Your task to perform on an android device: Go to internet settings Image 0: 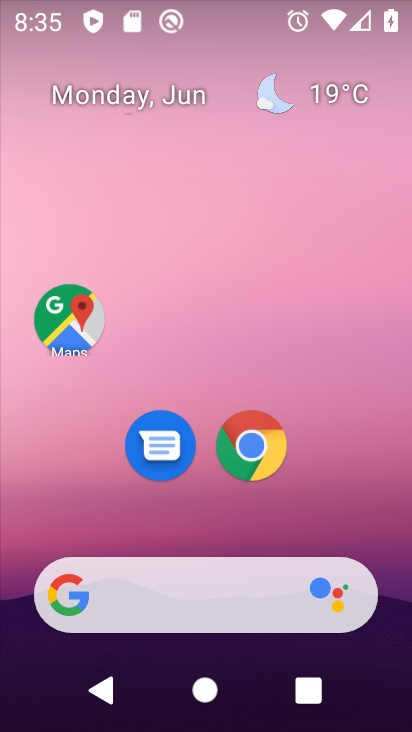
Step 0: drag from (33, 545) to (206, 104)
Your task to perform on an android device: Go to internet settings Image 1: 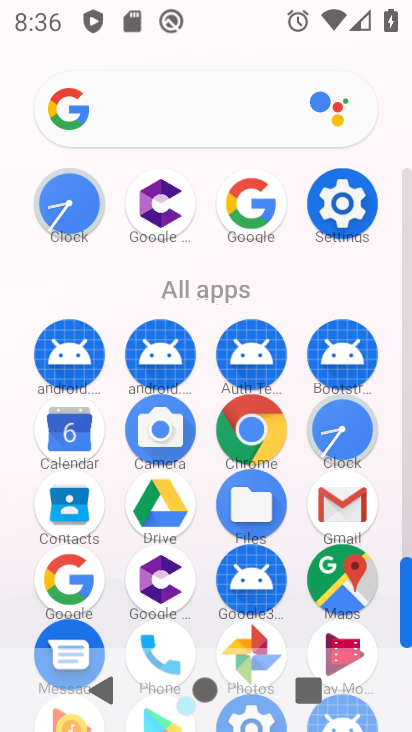
Step 1: click (352, 215)
Your task to perform on an android device: Go to internet settings Image 2: 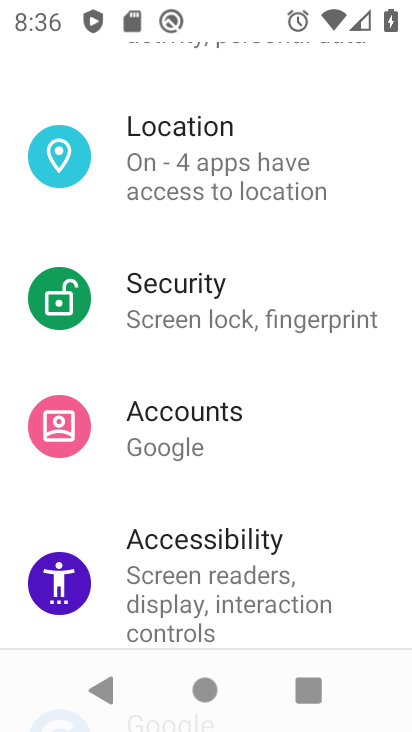
Step 2: drag from (339, 210) to (252, 590)
Your task to perform on an android device: Go to internet settings Image 3: 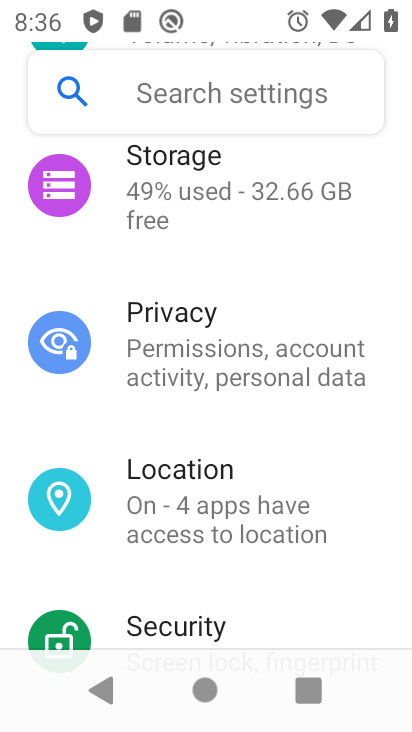
Step 3: drag from (297, 221) to (249, 553)
Your task to perform on an android device: Go to internet settings Image 4: 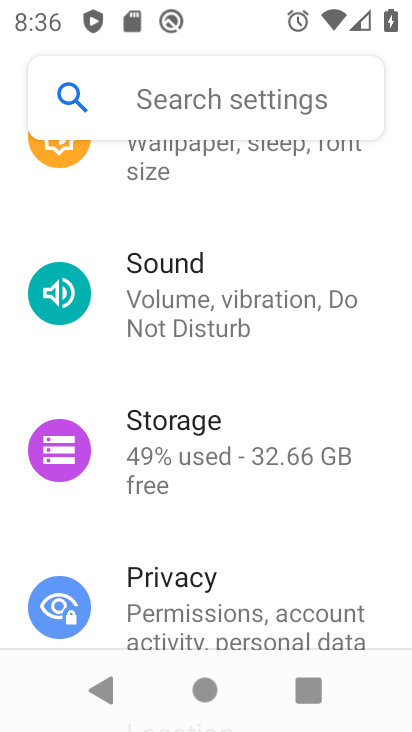
Step 4: drag from (287, 229) to (253, 539)
Your task to perform on an android device: Go to internet settings Image 5: 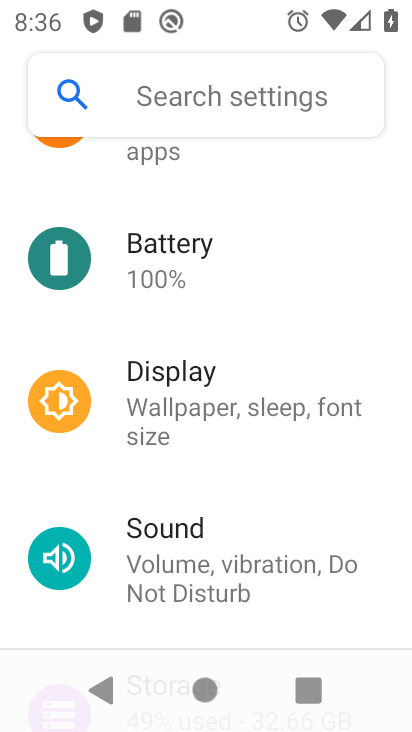
Step 5: drag from (243, 300) to (196, 483)
Your task to perform on an android device: Go to internet settings Image 6: 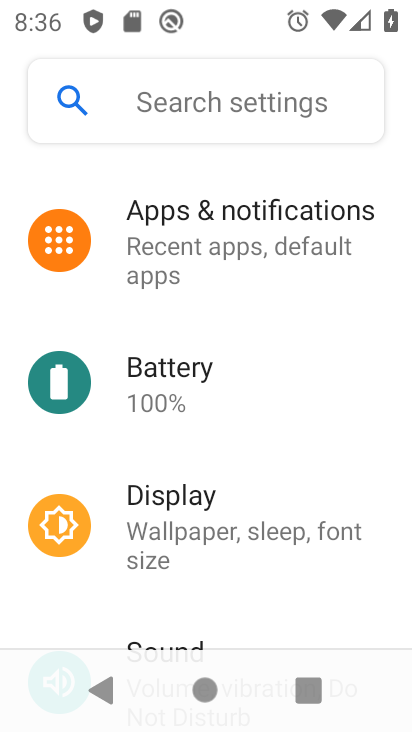
Step 6: drag from (248, 239) to (224, 542)
Your task to perform on an android device: Go to internet settings Image 7: 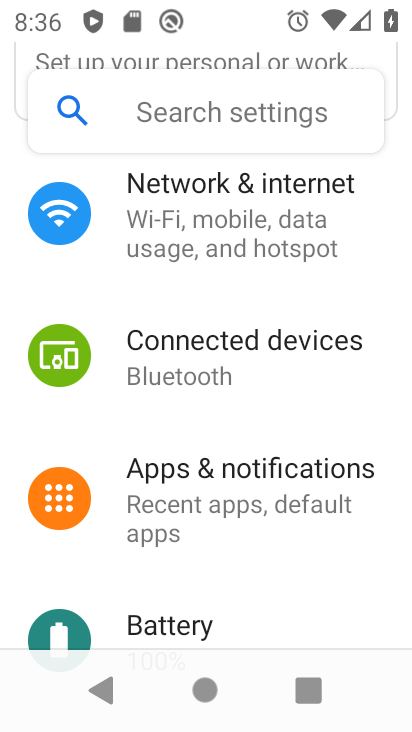
Step 7: click (251, 226)
Your task to perform on an android device: Go to internet settings Image 8: 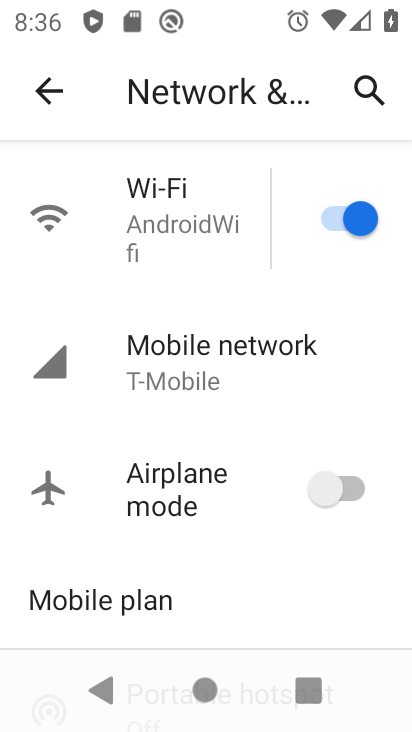
Step 8: click (249, 380)
Your task to perform on an android device: Go to internet settings Image 9: 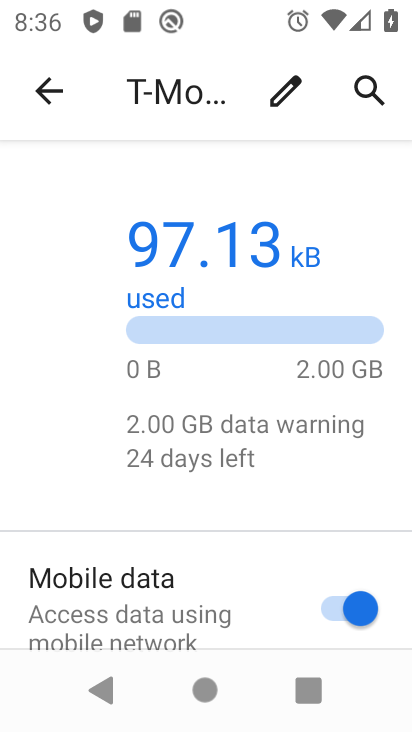
Step 9: task complete